Your task to perform on an android device: read, delete, or share a saved page in the chrome app Image 0: 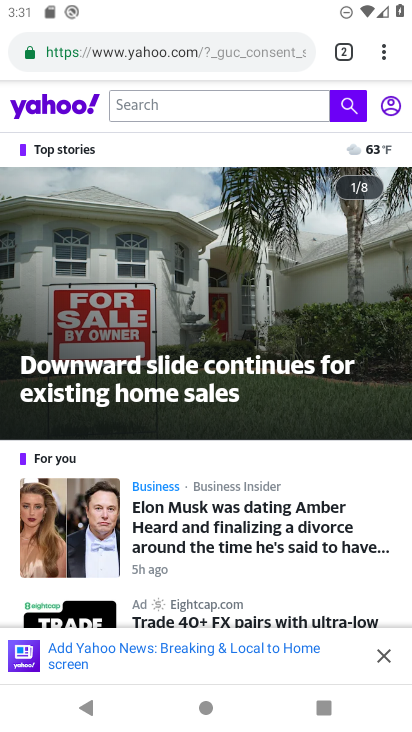
Step 0: click (382, 54)
Your task to perform on an android device: read, delete, or share a saved page in the chrome app Image 1: 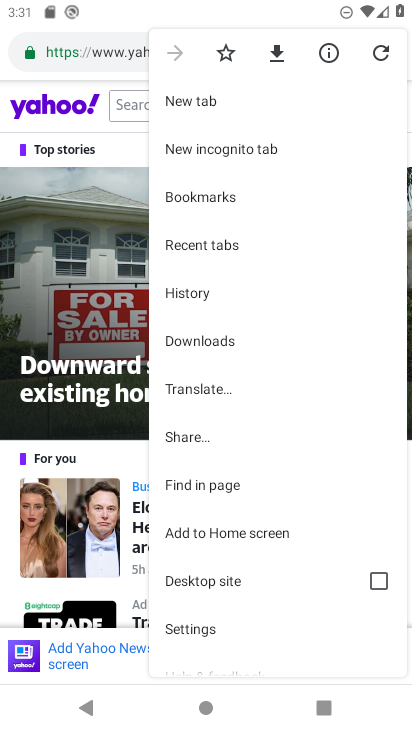
Step 1: click (202, 337)
Your task to perform on an android device: read, delete, or share a saved page in the chrome app Image 2: 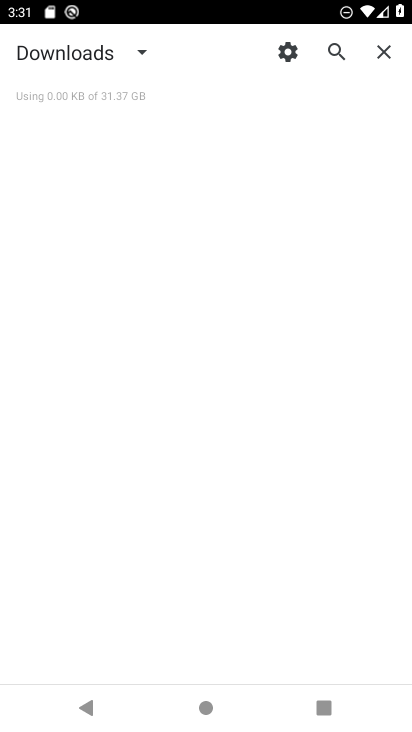
Step 2: click (141, 48)
Your task to perform on an android device: read, delete, or share a saved page in the chrome app Image 3: 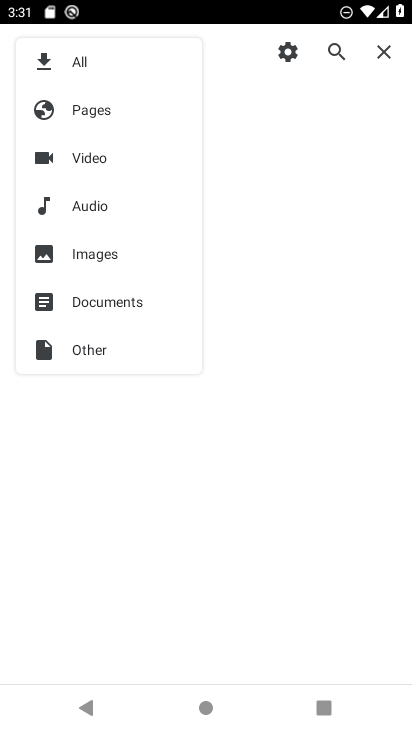
Step 3: click (84, 108)
Your task to perform on an android device: read, delete, or share a saved page in the chrome app Image 4: 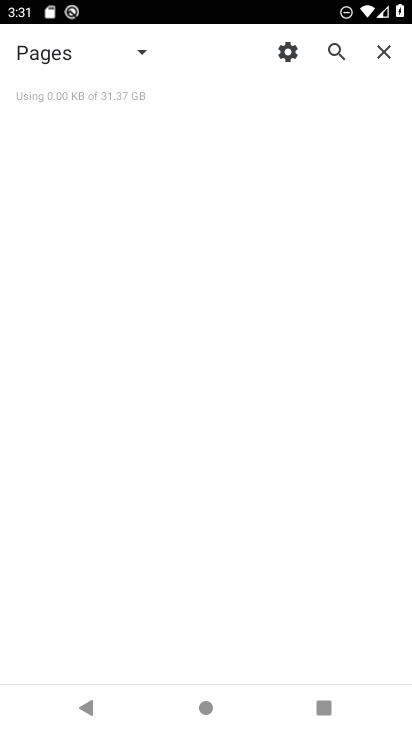
Step 4: task complete